Your task to perform on an android device: change notification settings in the gmail app Image 0: 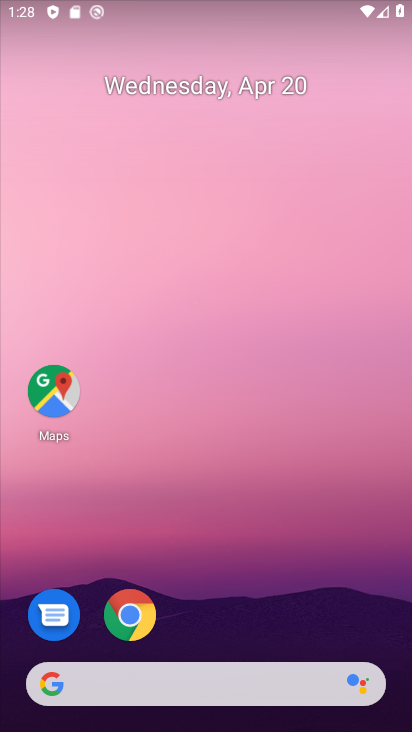
Step 0: drag from (199, 621) to (218, 62)
Your task to perform on an android device: change notification settings in the gmail app Image 1: 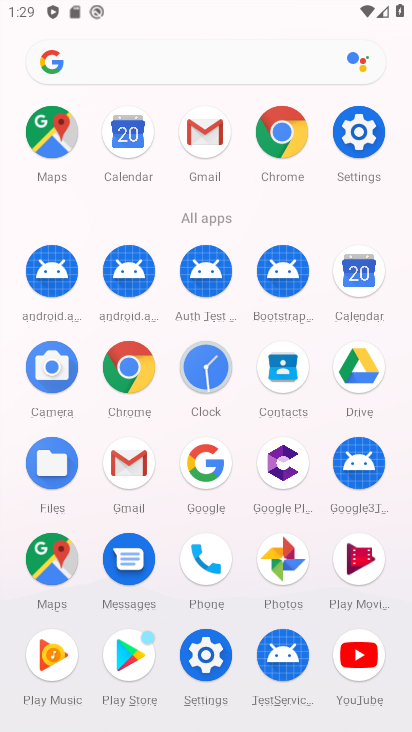
Step 1: click (211, 140)
Your task to perform on an android device: change notification settings in the gmail app Image 2: 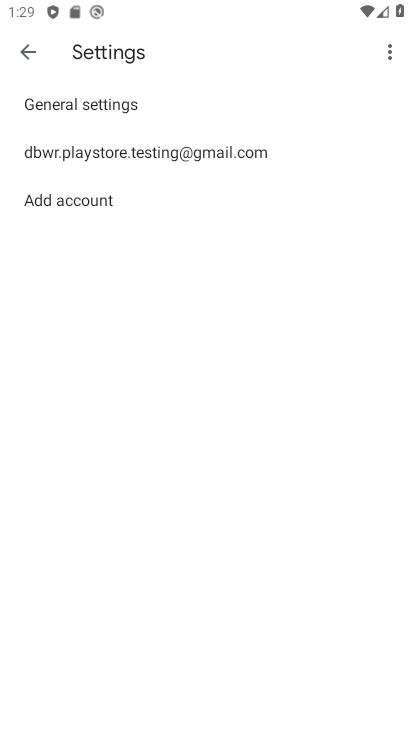
Step 2: click (48, 141)
Your task to perform on an android device: change notification settings in the gmail app Image 3: 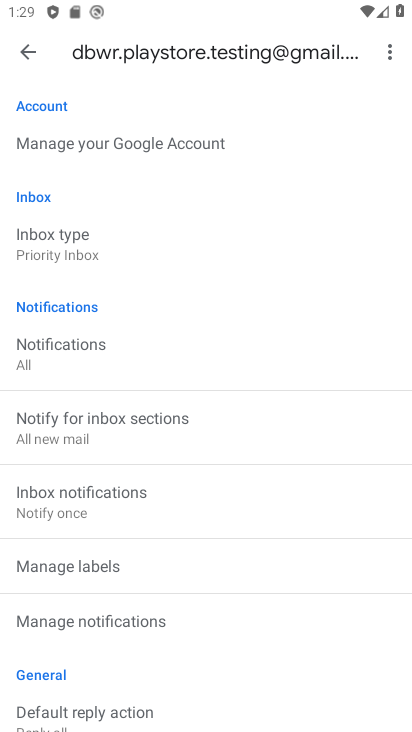
Step 3: click (33, 617)
Your task to perform on an android device: change notification settings in the gmail app Image 4: 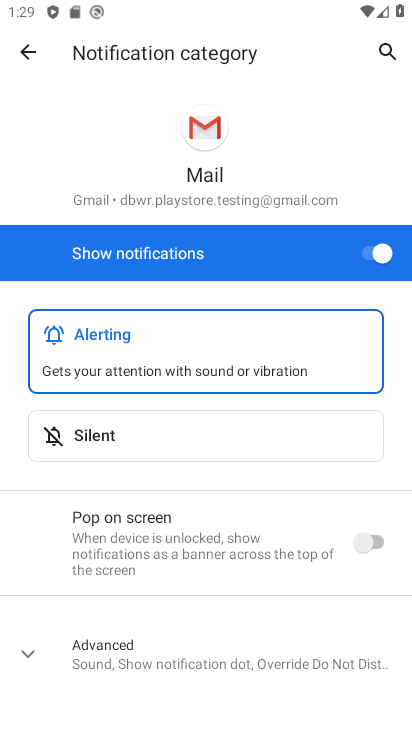
Step 4: click (344, 253)
Your task to perform on an android device: change notification settings in the gmail app Image 5: 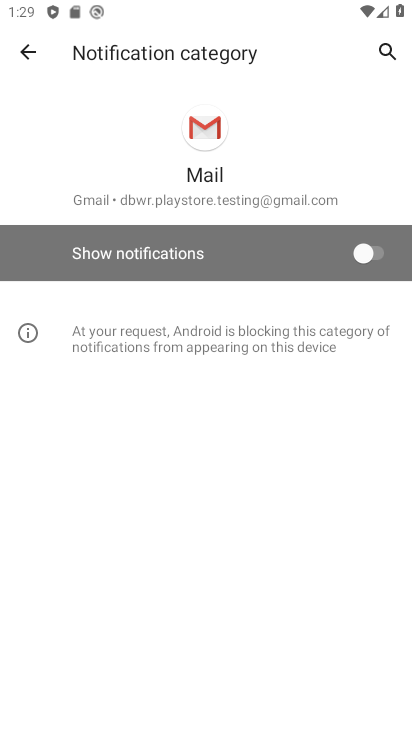
Step 5: task complete